Your task to perform on an android device: move an email to a new category in the gmail app Image 0: 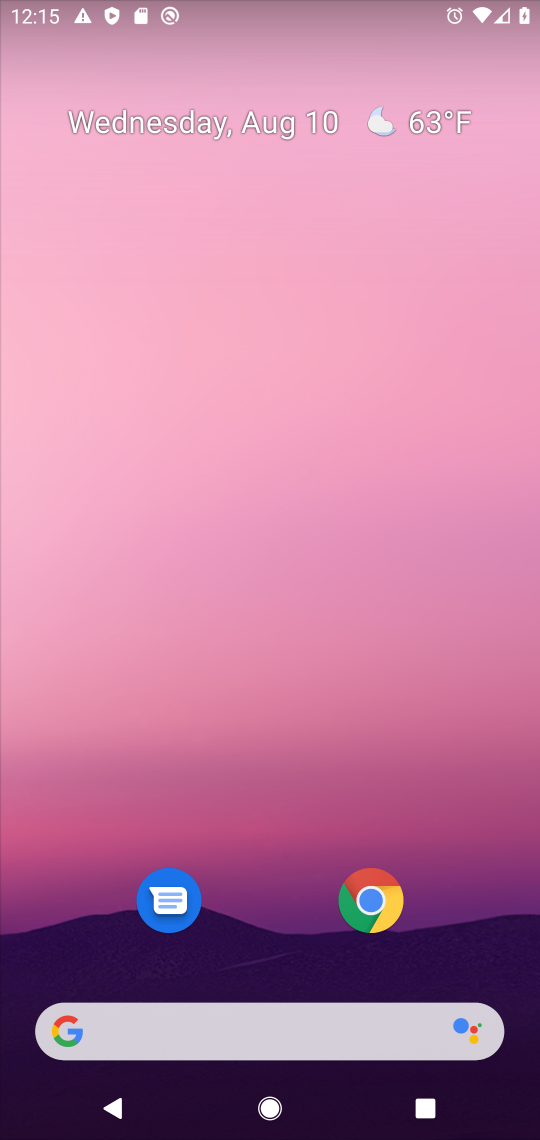
Step 0: drag from (284, 839) to (350, 0)
Your task to perform on an android device: move an email to a new category in the gmail app Image 1: 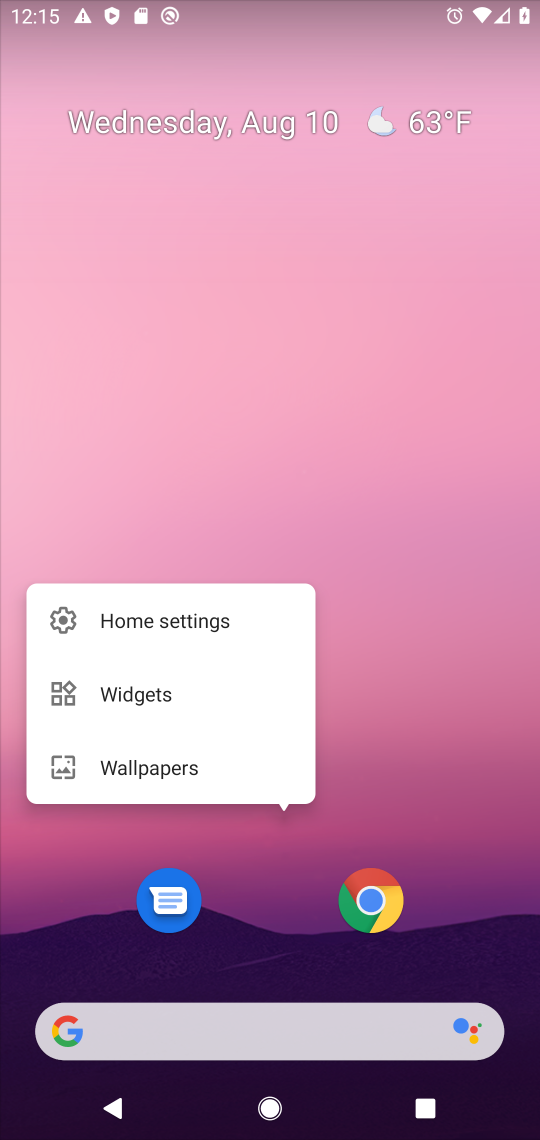
Step 1: click (362, 796)
Your task to perform on an android device: move an email to a new category in the gmail app Image 2: 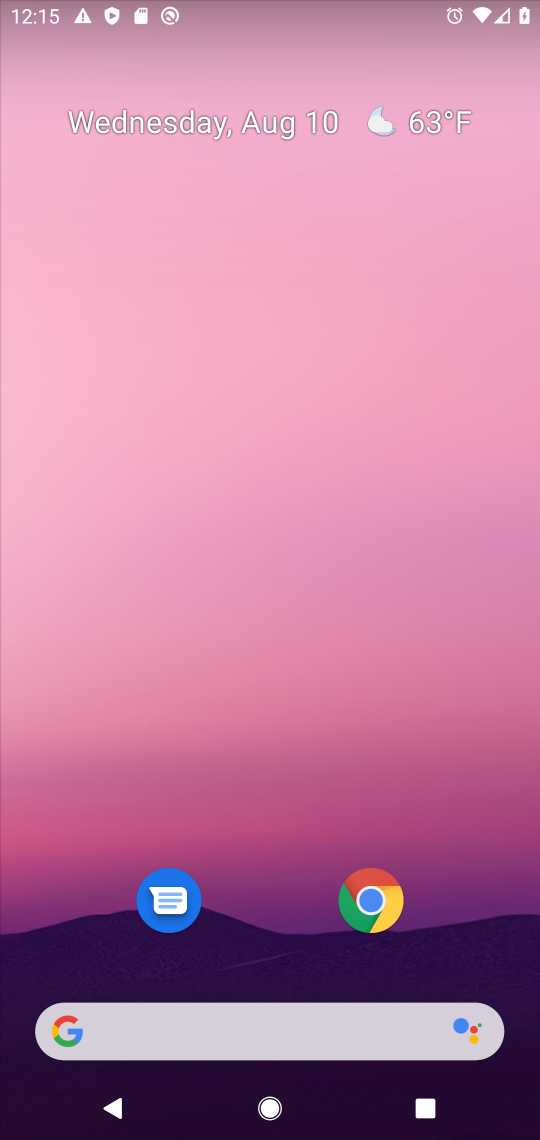
Step 2: drag from (284, 910) to (317, 0)
Your task to perform on an android device: move an email to a new category in the gmail app Image 3: 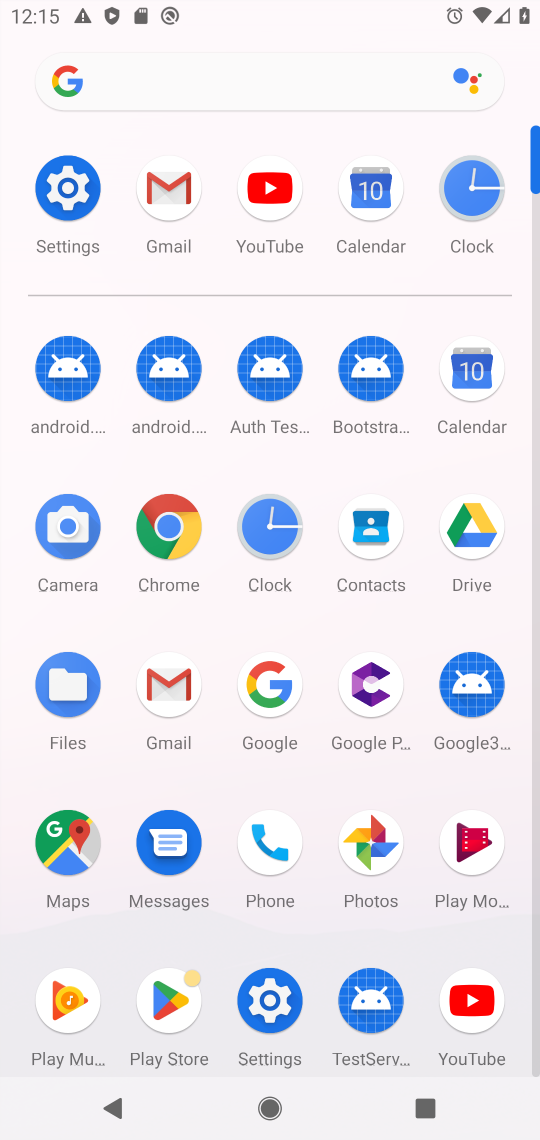
Step 3: click (175, 191)
Your task to perform on an android device: move an email to a new category in the gmail app Image 4: 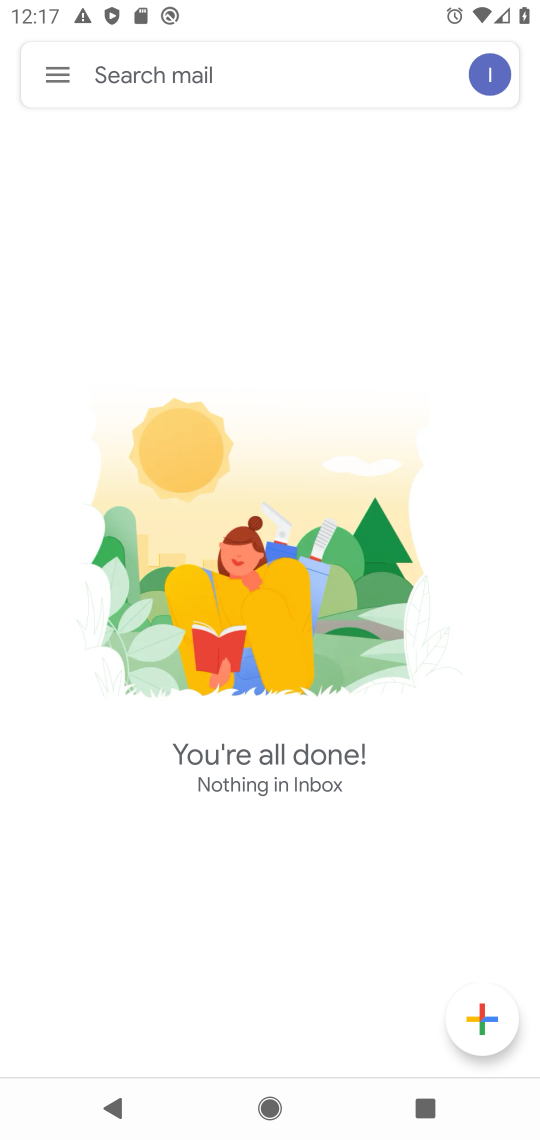
Step 4: task complete